Your task to perform on an android device: Open Google Image 0: 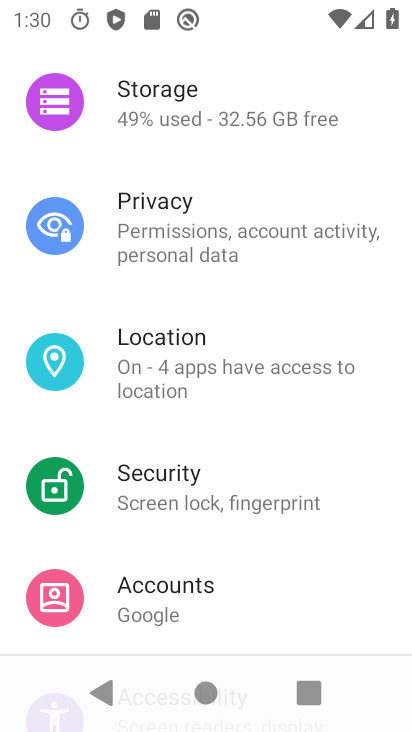
Step 0: press home button
Your task to perform on an android device: Open Google Image 1: 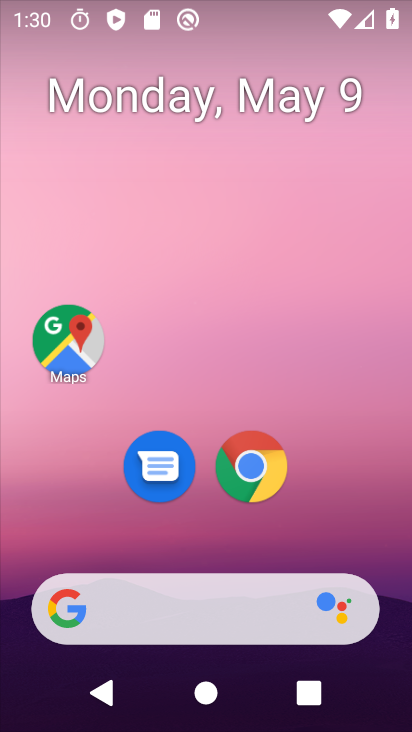
Step 1: drag from (221, 495) to (204, 259)
Your task to perform on an android device: Open Google Image 2: 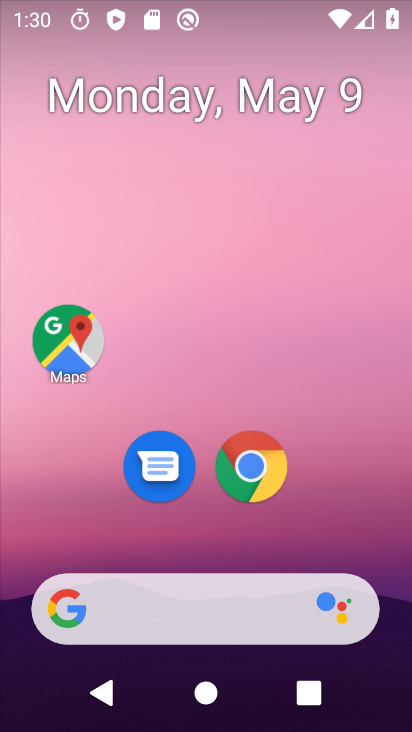
Step 2: drag from (269, 547) to (280, 155)
Your task to perform on an android device: Open Google Image 3: 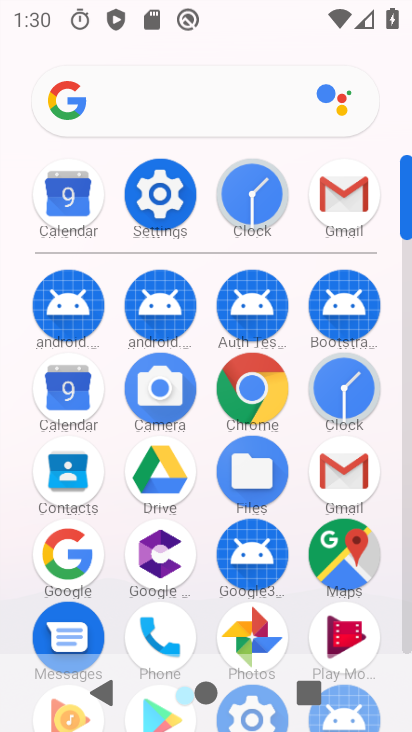
Step 3: drag from (314, 534) to (308, 344)
Your task to perform on an android device: Open Google Image 4: 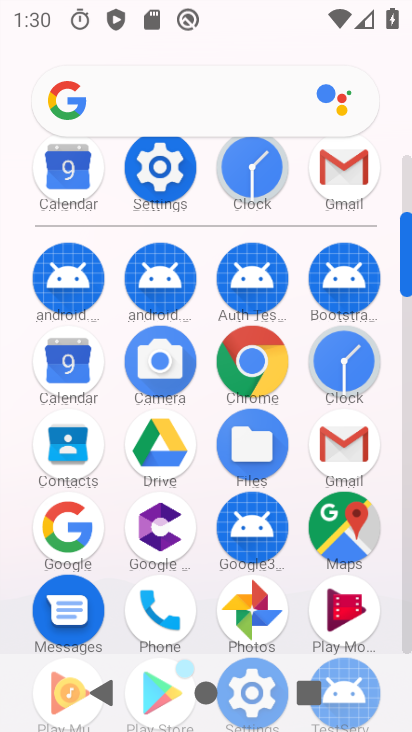
Step 4: click (52, 531)
Your task to perform on an android device: Open Google Image 5: 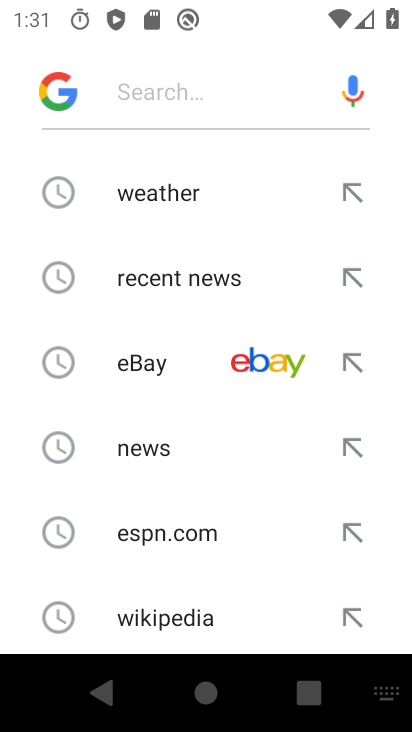
Step 5: task complete